Your task to perform on an android device: visit the assistant section in the google photos Image 0: 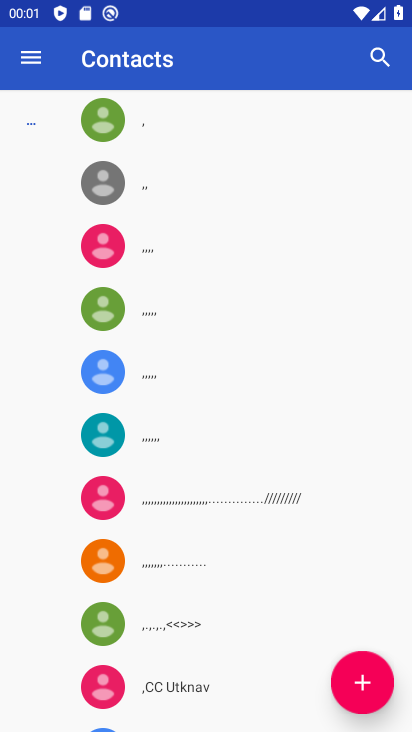
Step 0: press home button
Your task to perform on an android device: visit the assistant section in the google photos Image 1: 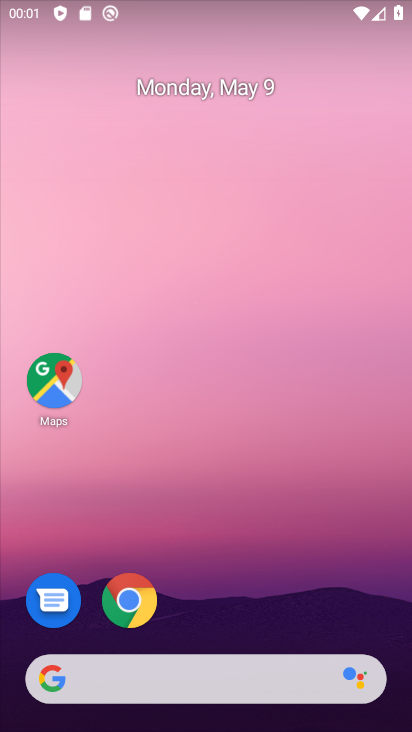
Step 1: drag from (276, 604) to (238, 115)
Your task to perform on an android device: visit the assistant section in the google photos Image 2: 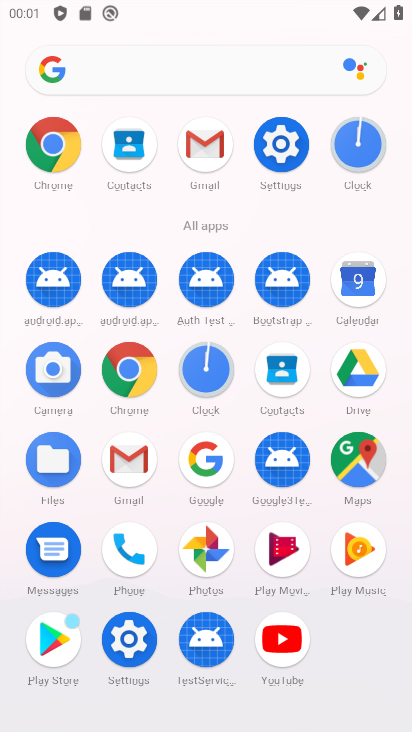
Step 2: click (208, 554)
Your task to perform on an android device: visit the assistant section in the google photos Image 3: 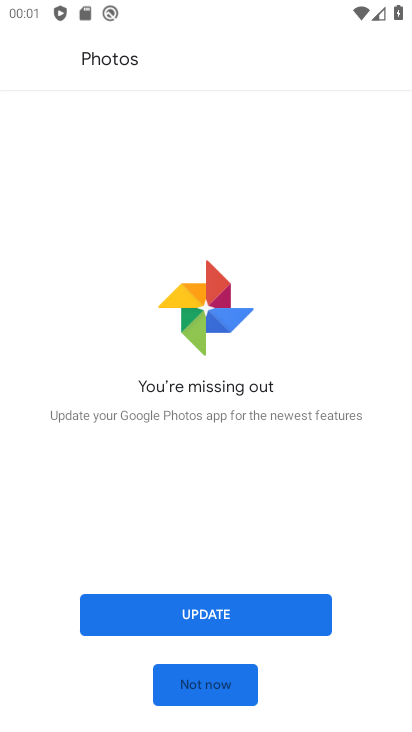
Step 3: click (227, 614)
Your task to perform on an android device: visit the assistant section in the google photos Image 4: 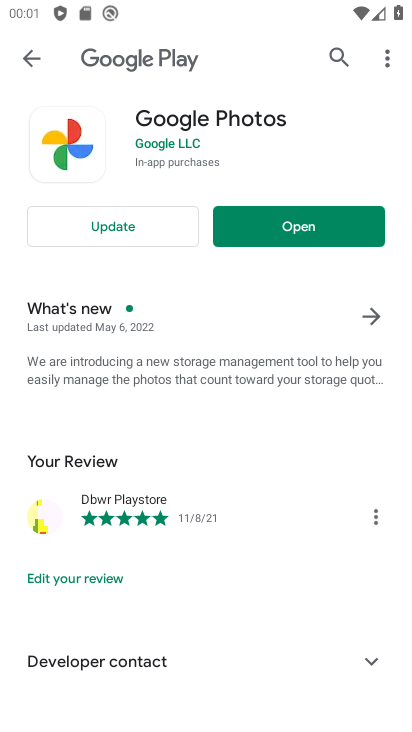
Step 4: click (108, 220)
Your task to perform on an android device: visit the assistant section in the google photos Image 5: 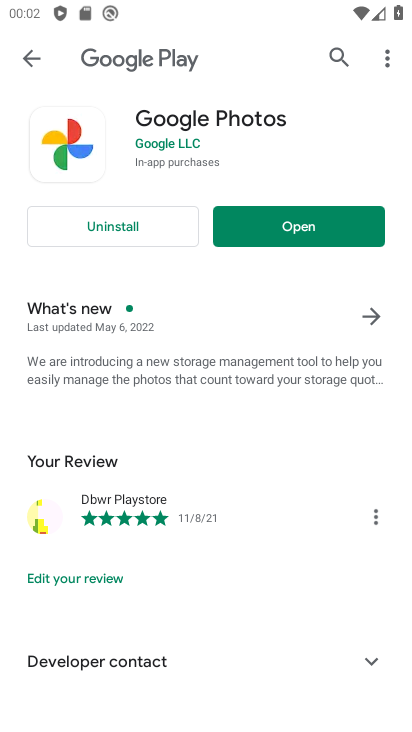
Step 5: click (302, 216)
Your task to perform on an android device: visit the assistant section in the google photos Image 6: 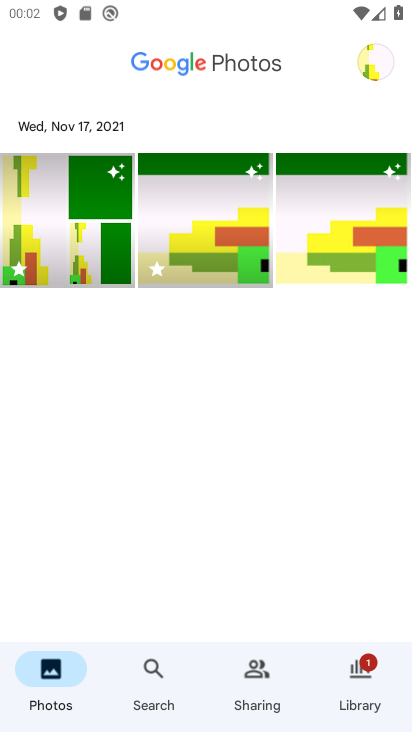
Step 6: click (373, 706)
Your task to perform on an android device: visit the assistant section in the google photos Image 7: 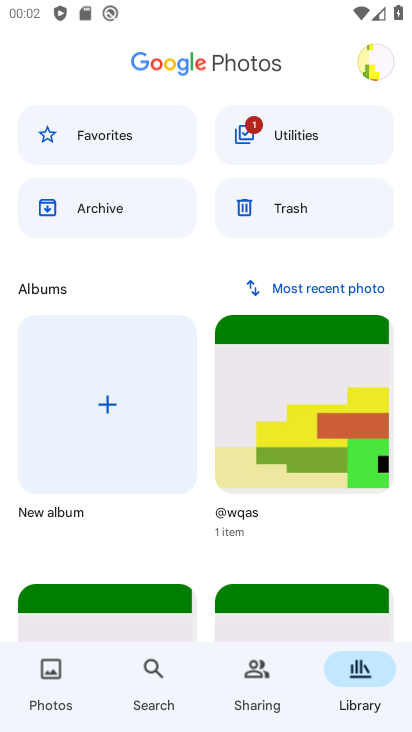
Step 7: task complete